Your task to perform on an android device: check out phone information Image 0: 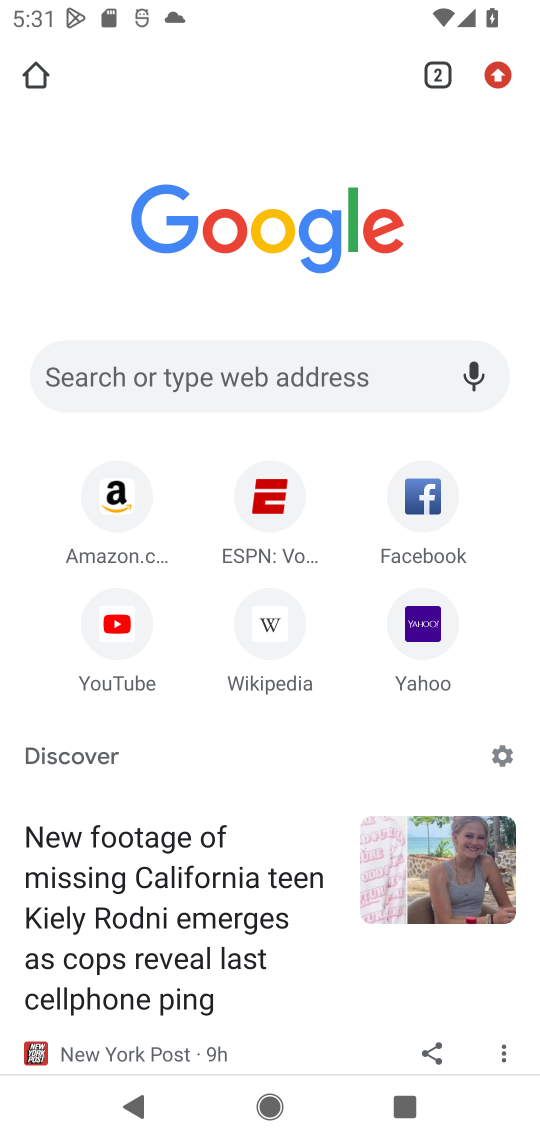
Step 0: task complete